Your task to perform on an android device: Turn off the flashlight Image 0: 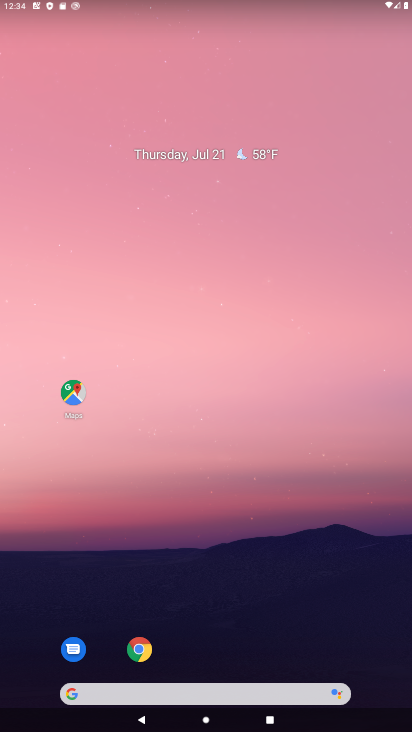
Step 0: drag from (217, 5) to (213, 461)
Your task to perform on an android device: Turn off the flashlight Image 1: 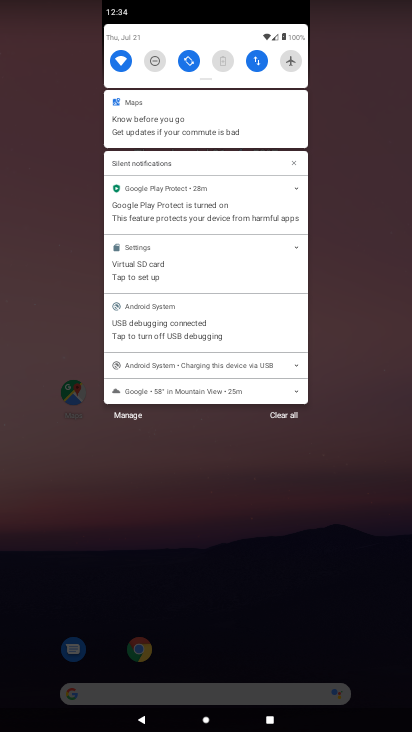
Step 1: drag from (206, 82) to (211, 354)
Your task to perform on an android device: Turn off the flashlight Image 2: 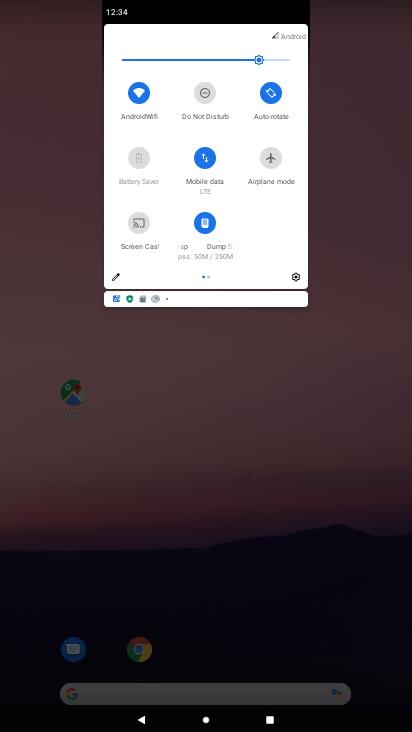
Step 2: click (111, 273)
Your task to perform on an android device: Turn off the flashlight Image 3: 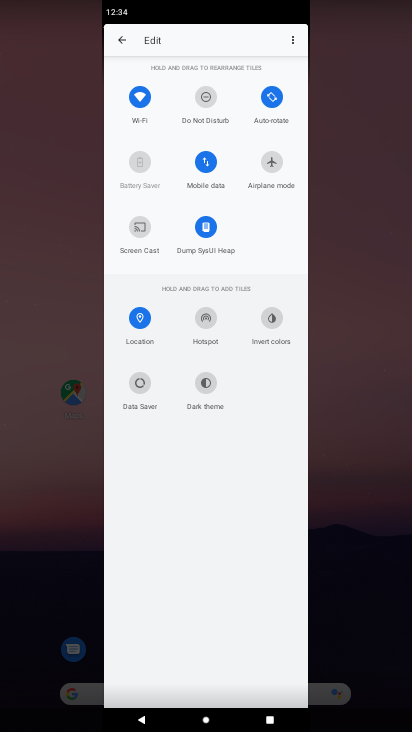
Step 3: task complete